Your task to perform on an android device: turn on wifi Image 0: 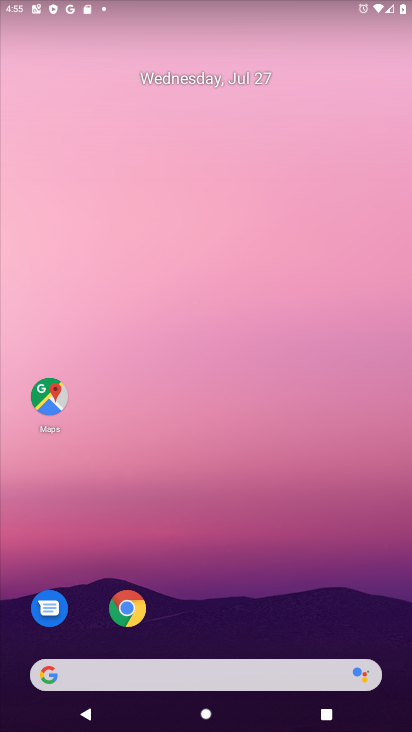
Step 0: drag from (228, 621) to (144, 169)
Your task to perform on an android device: turn on wifi Image 1: 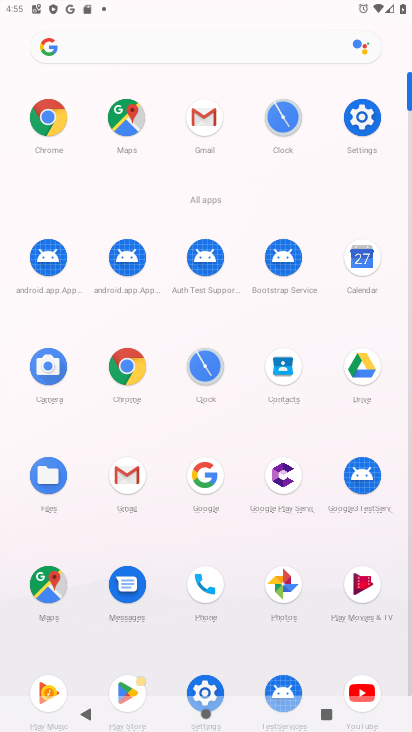
Step 1: click (364, 119)
Your task to perform on an android device: turn on wifi Image 2: 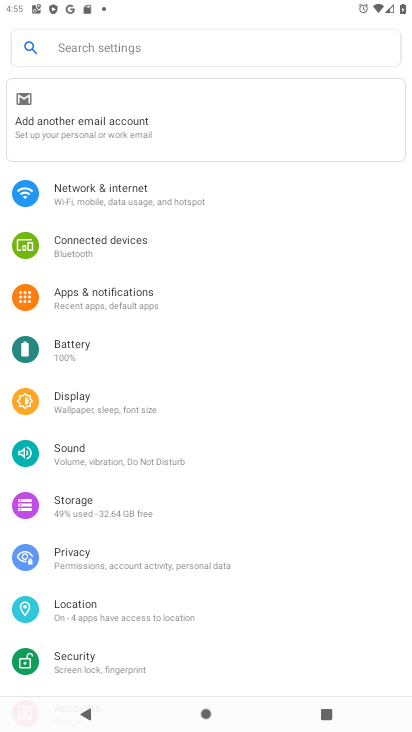
Step 2: click (130, 177)
Your task to perform on an android device: turn on wifi Image 3: 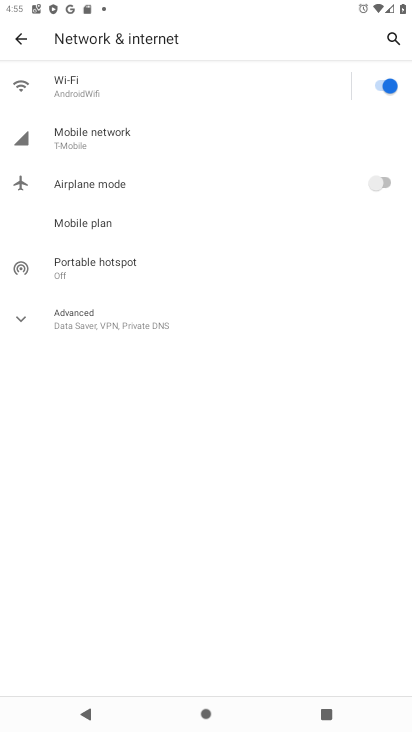
Step 3: click (239, 98)
Your task to perform on an android device: turn on wifi Image 4: 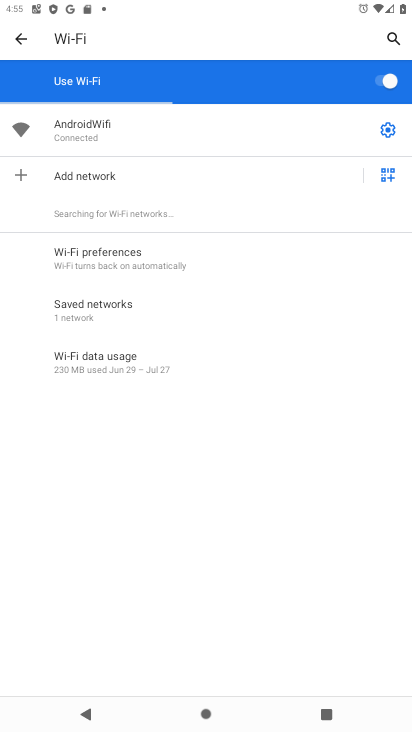
Step 4: task complete